Your task to perform on an android device: Go to Android settings Image 0: 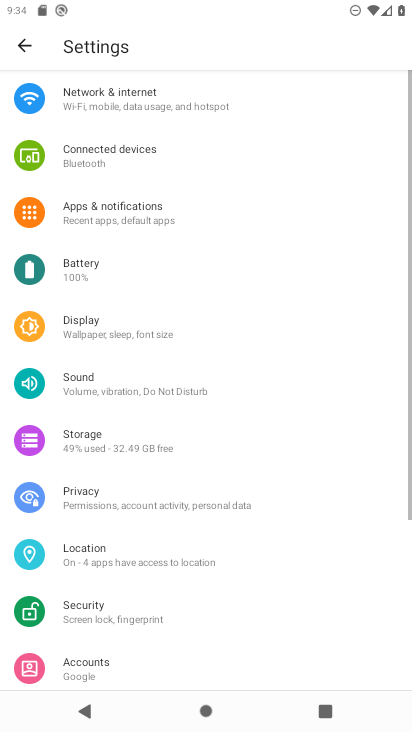
Step 0: task complete